Your task to perform on an android device: add a label to a message in the gmail app Image 0: 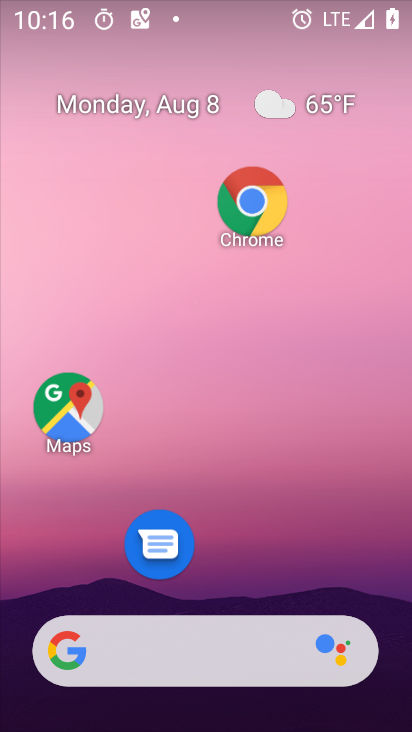
Step 0: press home button
Your task to perform on an android device: add a label to a message in the gmail app Image 1: 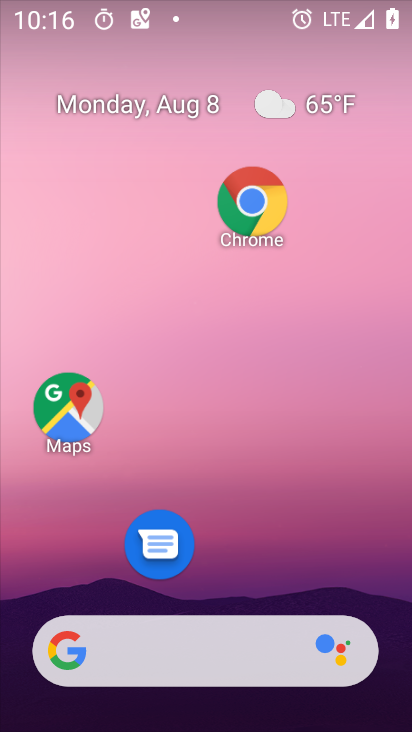
Step 1: drag from (310, 551) to (336, 47)
Your task to perform on an android device: add a label to a message in the gmail app Image 2: 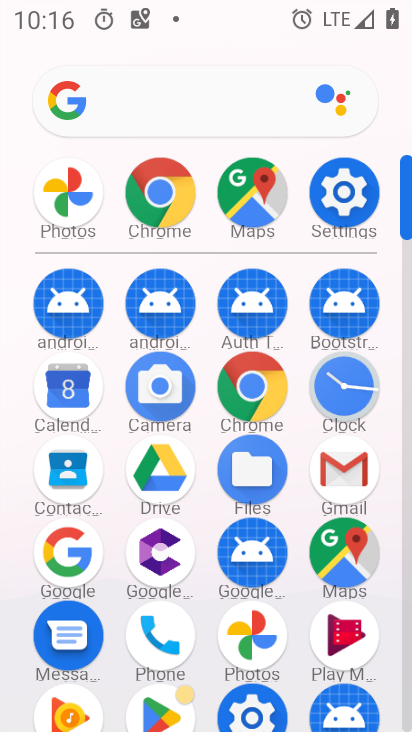
Step 2: click (339, 464)
Your task to perform on an android device: add a label to a message in the gmail app Image 3: 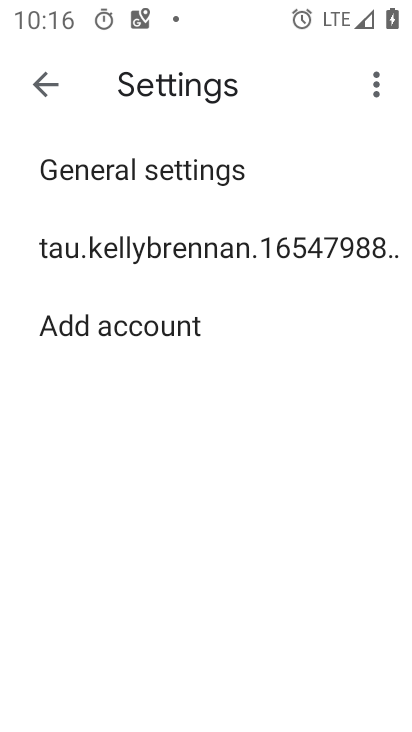
Step 3: click (37, 82)
Your task to perform on an android device: add a label to a message in the gmail app Image 4: 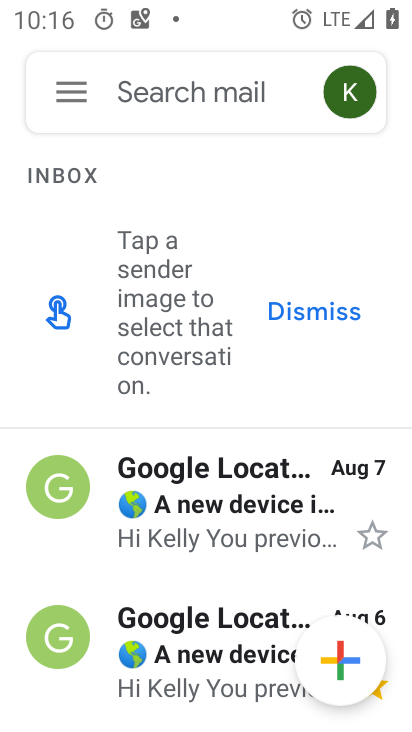
Step 4: click (55, 492)
Your task to perform on an android device: add a label to a message in the gmail app Image 5: 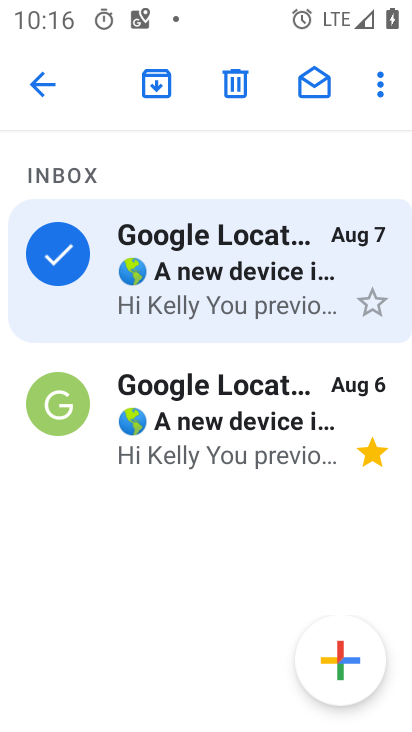
Step 5: click (377, 82)
Your task to perform on an android device: add a label to a message in the gmail app Image 6: 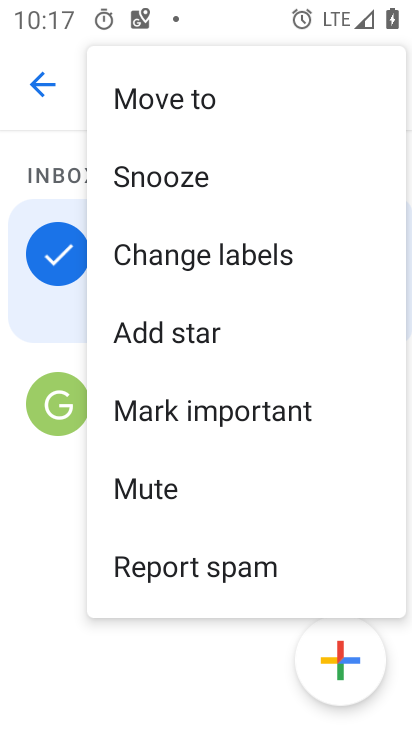
Step 6: click (244, 255)
Your task to perform on an android device: add a label to a message in the gmail app Image 7: 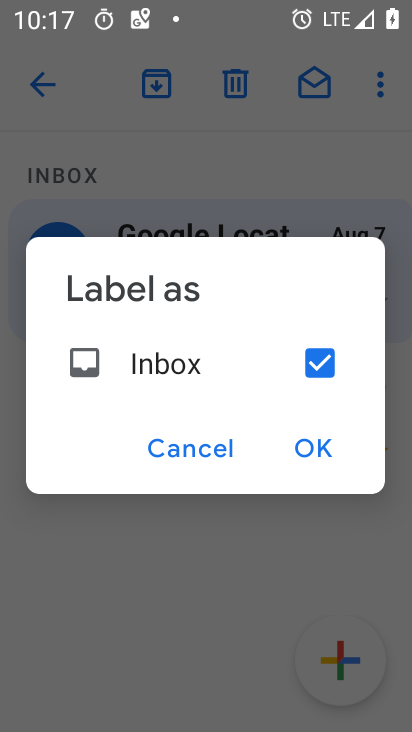
Step 7: click (317, 363)
Your task to perform on an android device: add a label to a message in the gmail app Image 8: 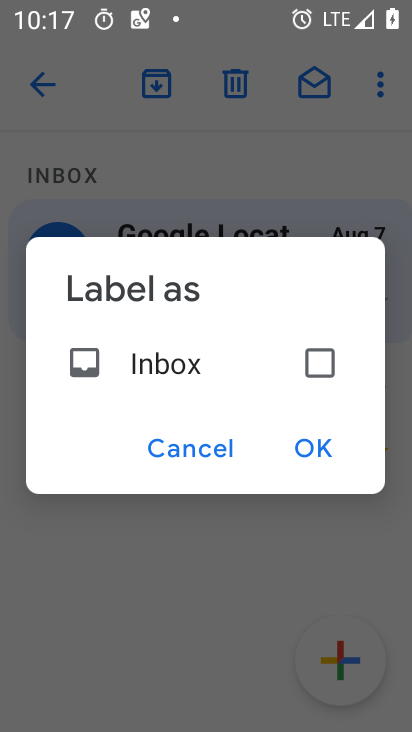
Step 8: click (316, 451)
Your task to perform on an android device: add a label to a message in the gmail app Image 9: 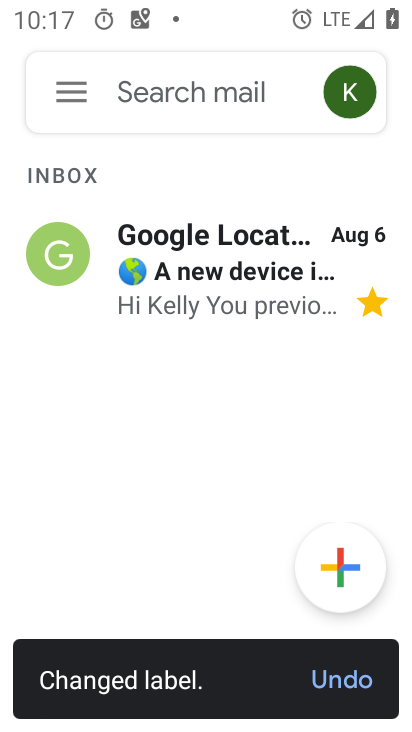
Step 9: task complete